Your task to perform on an android device: turn on data saver in the chrome app Image 0: 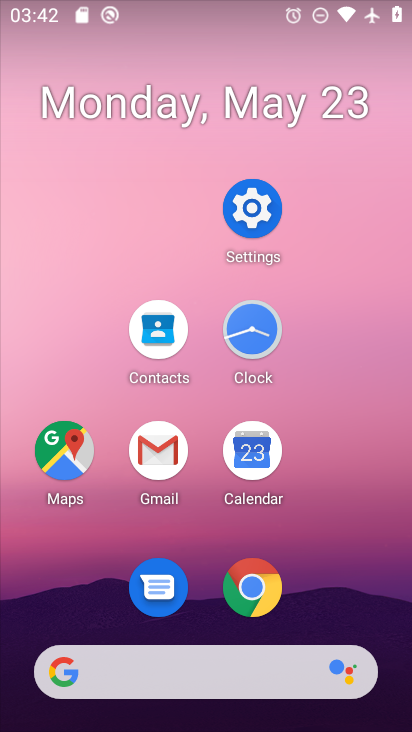
Step 0: click (264, 577)
Your task to perform on an android device: turn on data saver in the chrome app Image 1: 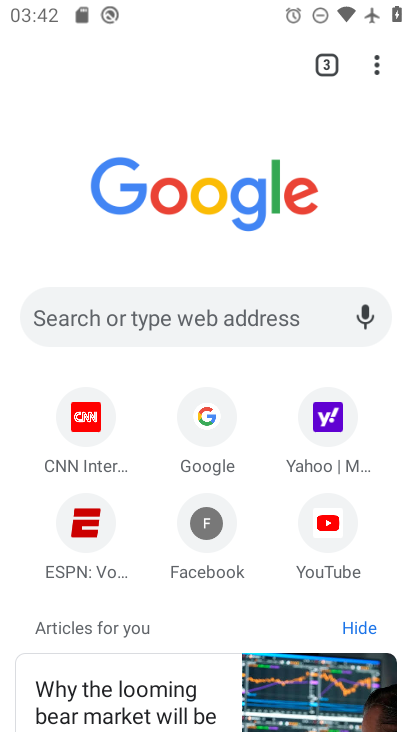
Step 1: click (376, 70)
Your task to perform on an android device: turn on data saver in the chrome app Image 2: 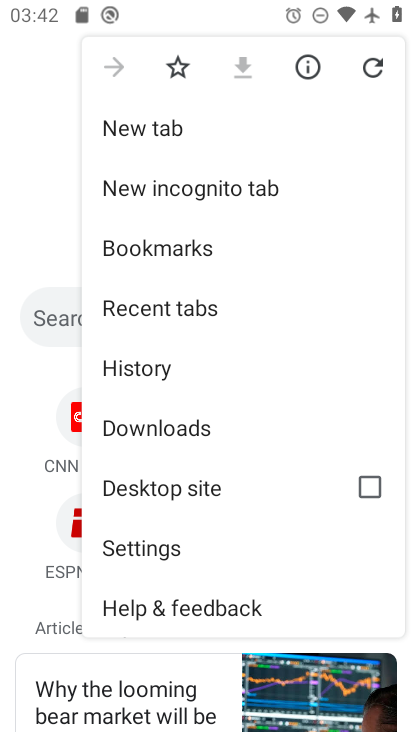
Step 2: click (196, 561)
Your task to perform on an android device: turn on data saver in the chrome app Image 3: 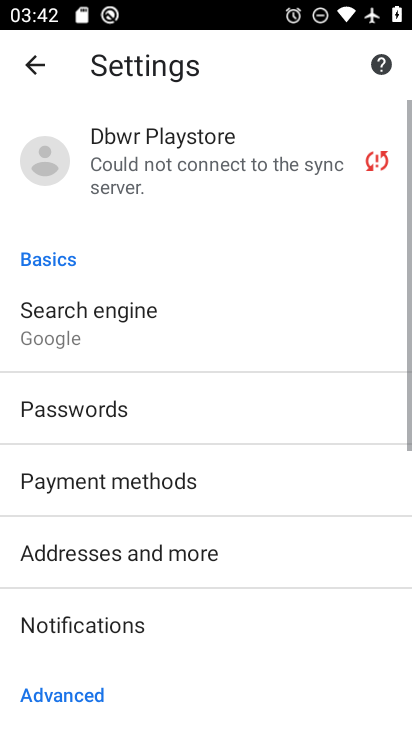
Step 3: drag from (182, 631) to (232, 48)
Your task to perform on an android device: turn on data saver in the chrome app Image 4: 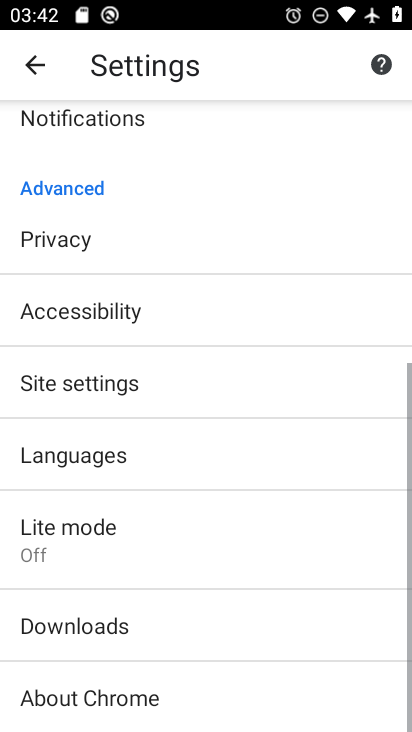
Step 4: drag from (168, 657) to (173, 551)
Your task to perform on an android device: turn on data saver in the chrome app Image 5: 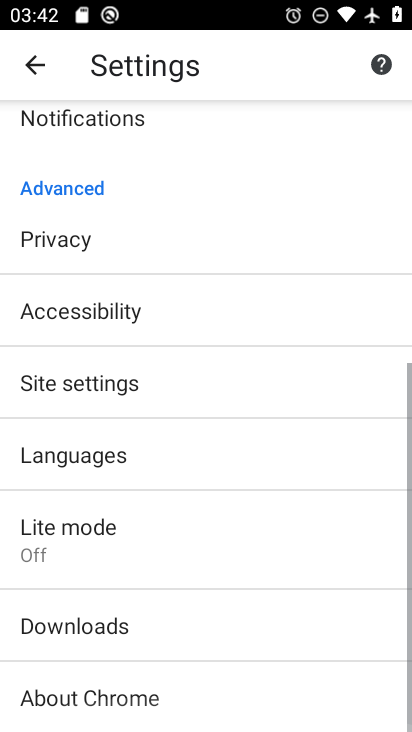
Step 5: click (173, 551)
Your task to perform on an android device: turn on data saver in the chrome app Image 6: 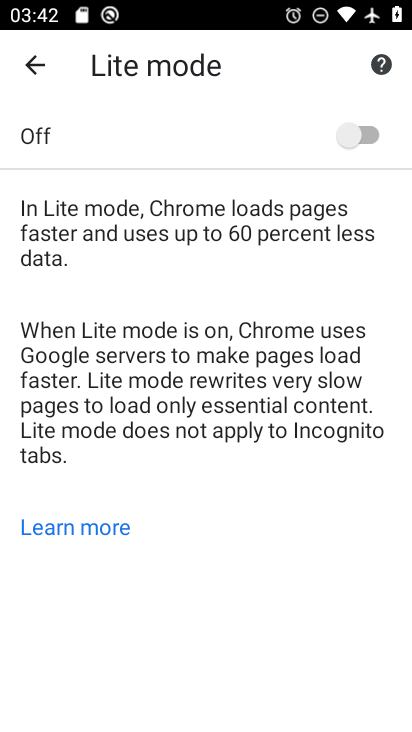
Step 6: click (351, 131)
Your task to perform on an android device: turn on data saver in the chrome app Image 7: 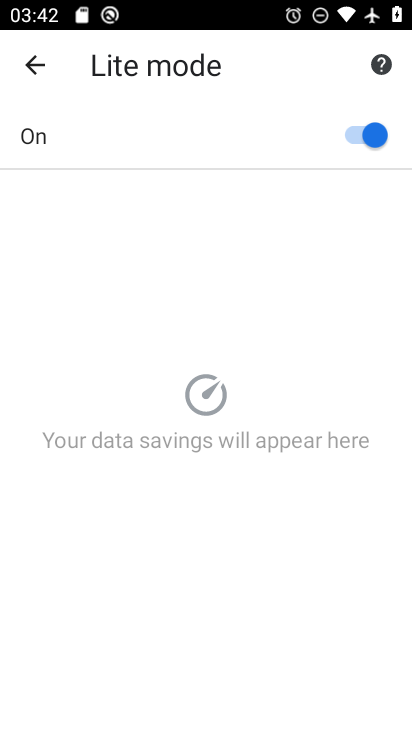
Step 7: task complete